Your task to perform on an android device: Play the last video I watched on Youtube Image 0: 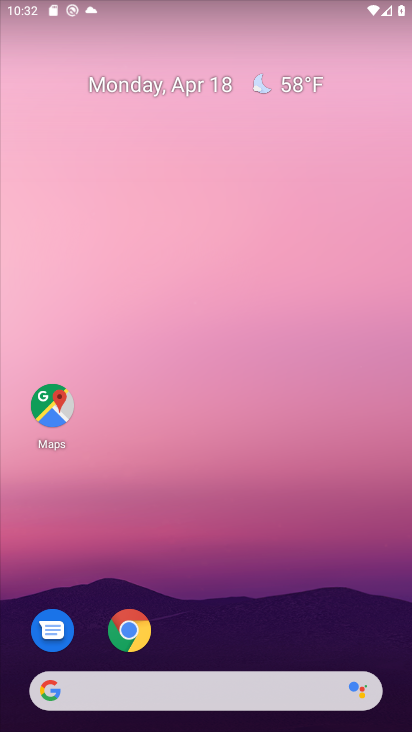
Step 0: drag from (228, 665) to (172, 62)
Your task to perform on an android device: Play the last video I watched on Youtube Image 1: 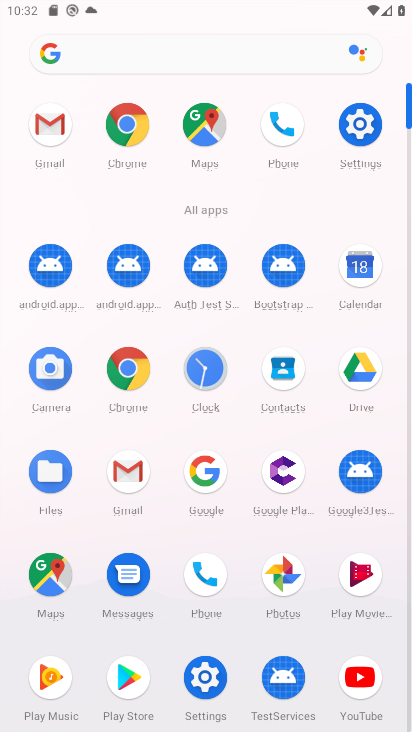
Step 1: click (356, 674)
Your task to perform on an android device: Play the last video I watched on Youtube Image 2: 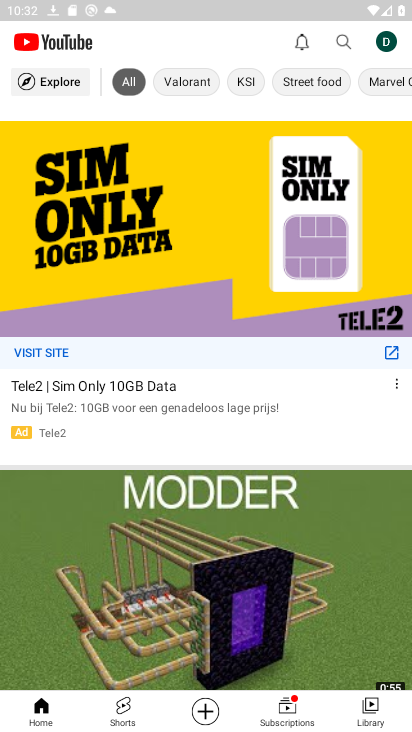
Step 2: click (376, 708)
Your task to perform on an android device: Play the last video I watched on Youtube Image 3: 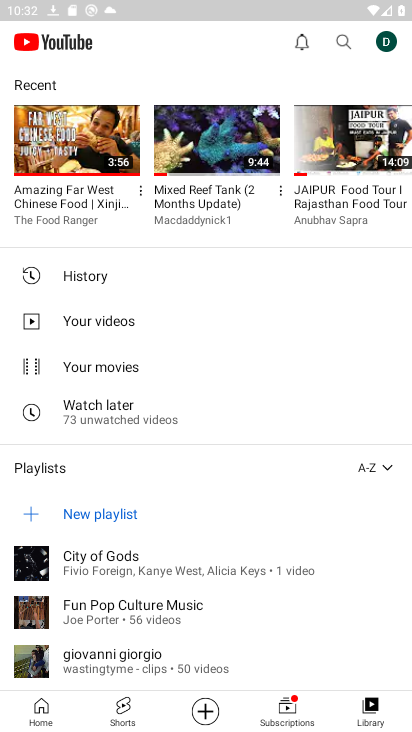
Step 3: click (96, 273)
Your task to perform on an android device: Play the last video I watched on Youtube Image 4: 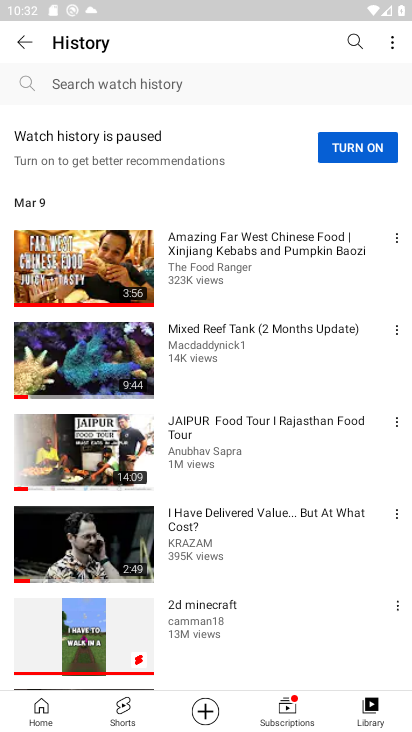
Step 4: click (153, 273)
Your task to perform on an android device: Play the last video I watched on Youtube Image 5: 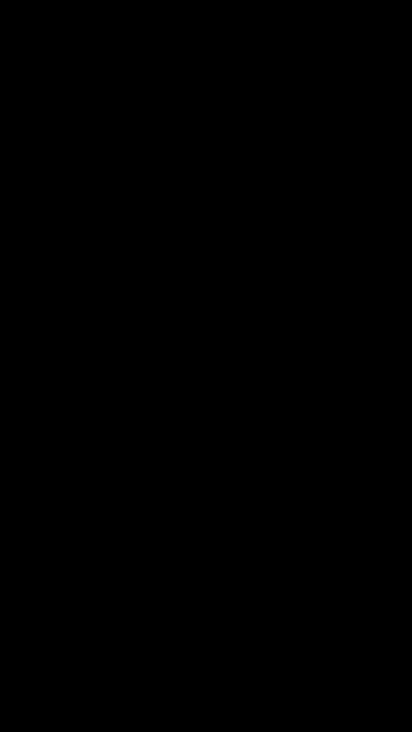
Step 5: task complete